Your task to perform on an android device: remove spam from my inbox in the gmail app Image 0: 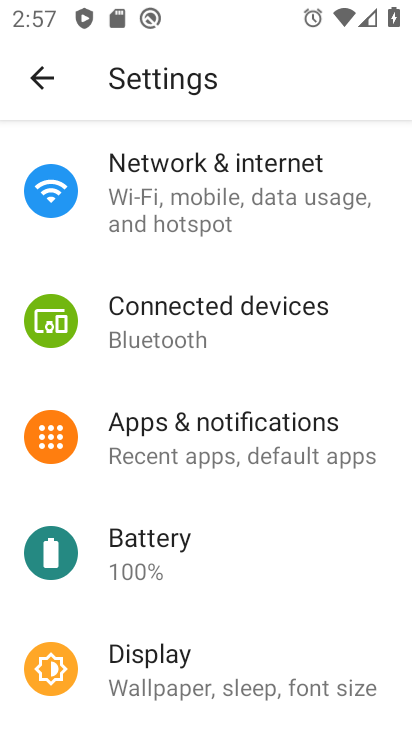
Step 0: press home button
Your task to perform on an android device: remove spam from my inbox in the gmail app Image 1: 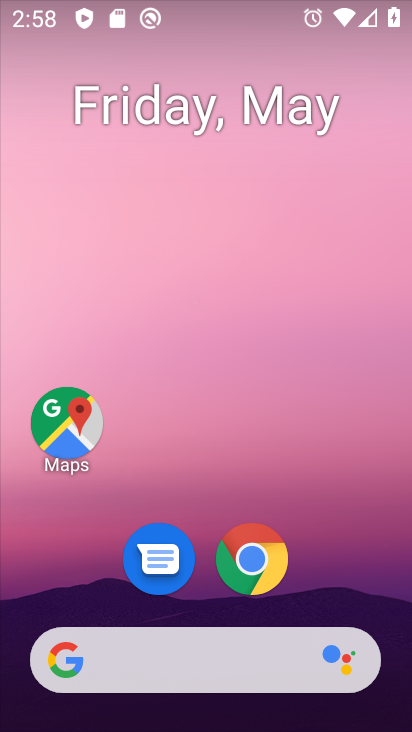
Step 1: drag from (353, 598) to (259, 147)
Your task to perform on an android device: remove spam from my inbox in the gmail app Image 2: 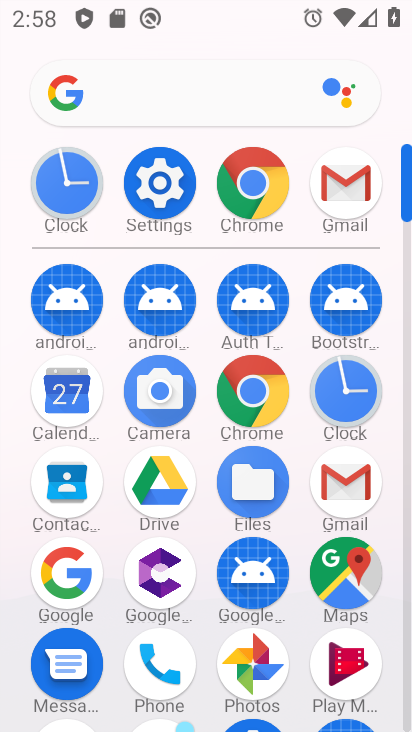
Step 2: click (348, 189)
Your task to perform on an android device: remove spam from my inbox in the gmail app Image 3: 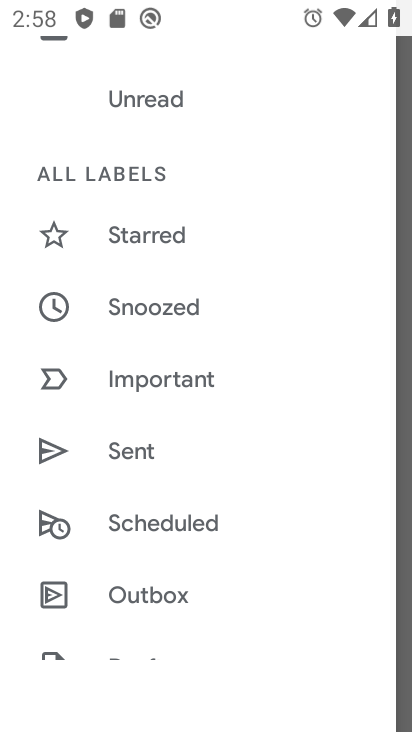
Step 3: task complete